Your task to perform on an android device: Turn off the flashlight Image 0: 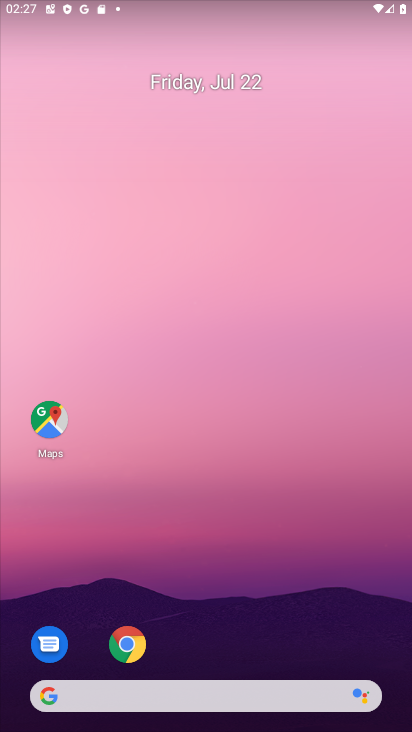
Step 0: drag from (205, 14) to (316, 715)
Your task to perform on an android device: Turn off the flashlight Image 1: 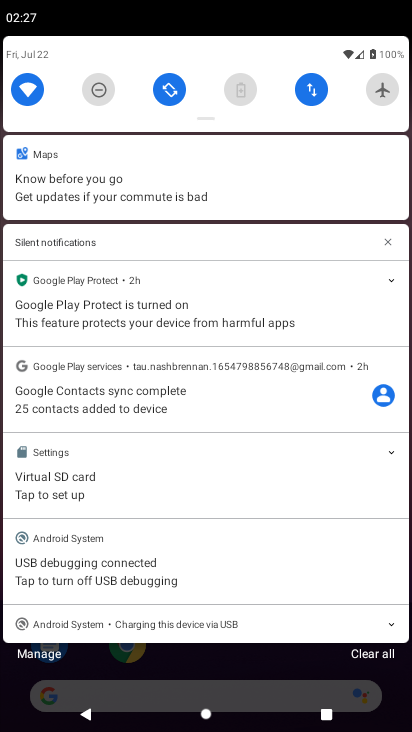
Step 1: task complete